Your task to perform on an android device: Go to display settings Image 0: 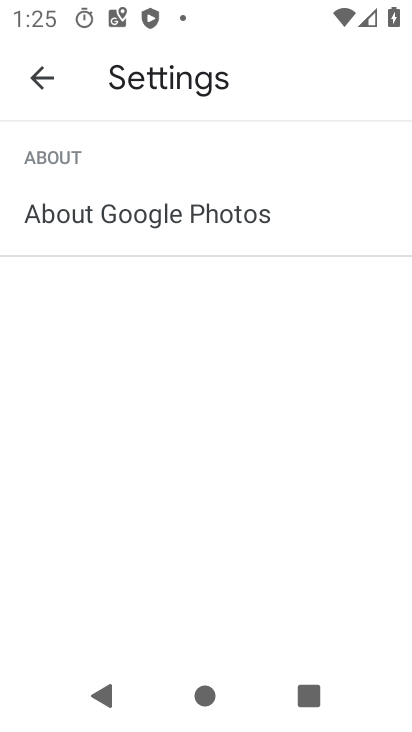
Step 0: press home button
Your task to perform on an android device: Go to display settings Image 1: 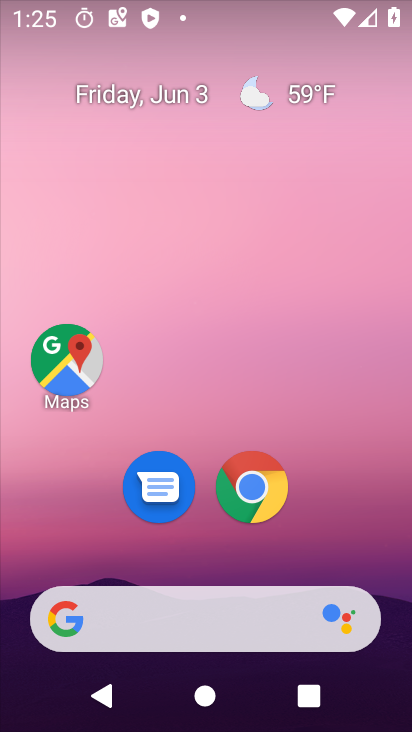
Step 1: drag from (201, 558) to (209, 18)
Your task to perform on an android device: Go to display settings Image 2: 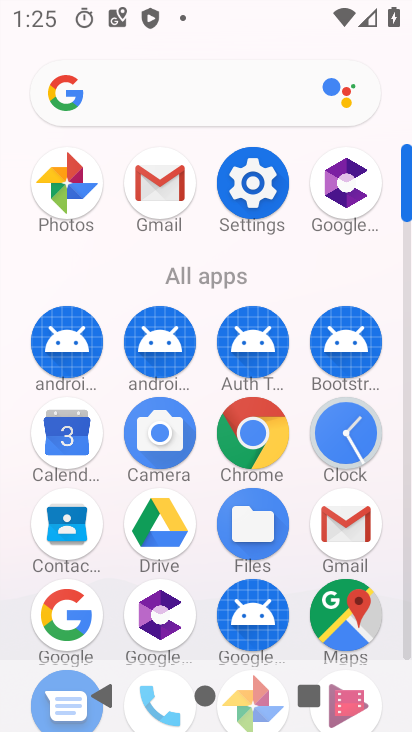
Step 2: click (256, 176)
Your task to perform on an android device: Go to display settings Image 3: 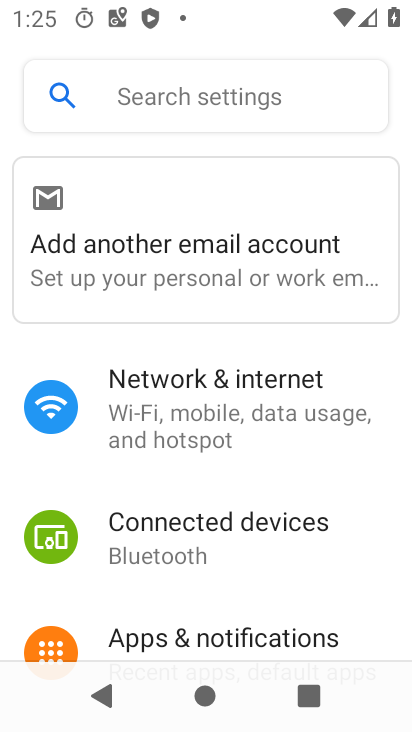
Step 3: drag from (234, 615) to (272, 198)
Your task to perform on an android device: Go to display settings Image 4: 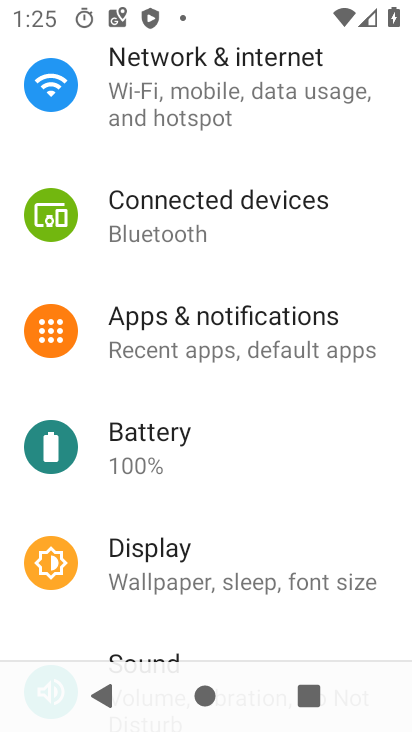
Step 4: click (223, 561)
Your task to perform on an android device: Go to display settings Image 5: 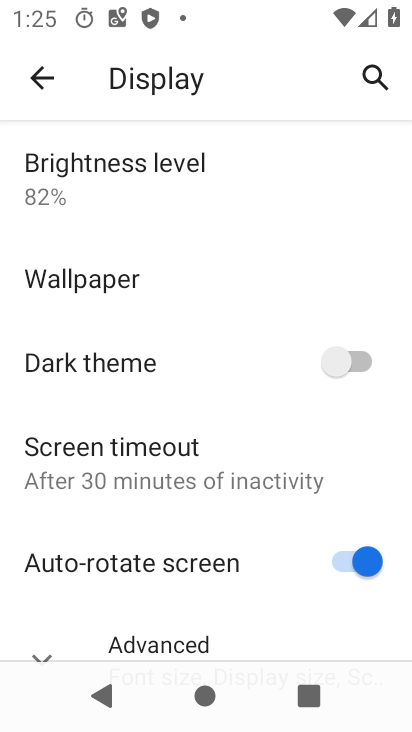
Step 5: drag from (139, 596) to (186, 102)
Your task to perform on an android device: Go to display settings Image 6: 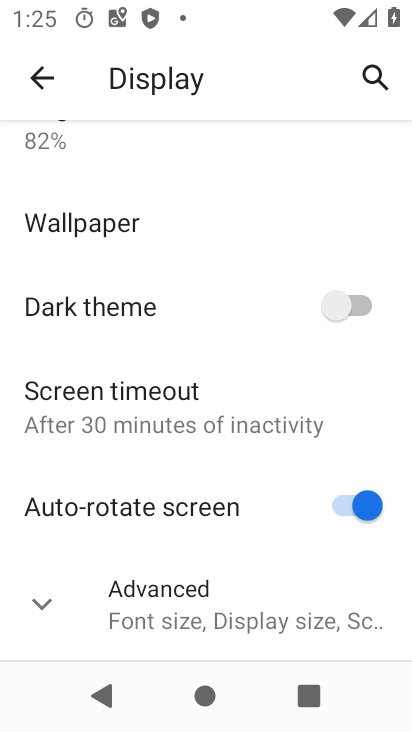
Step 6: click (48, 600)
Your task to perform on an android device: Go to display settings Image 7: 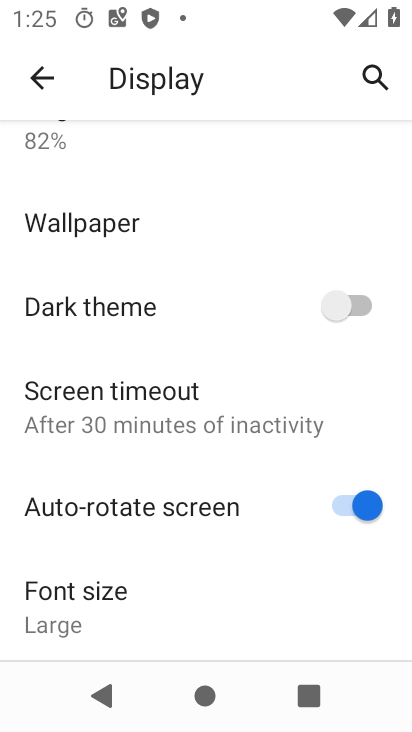
Step 7: task complete